Your task to perform on an android device: open chrome privacy settings Image 0: 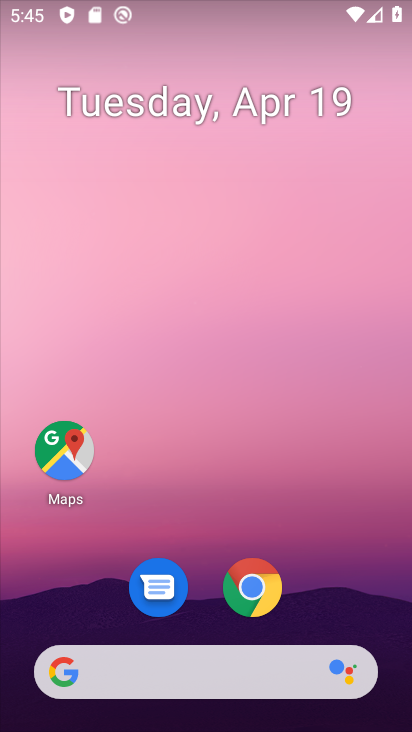
Step 0: click (258, 572)
Your task to perform on an android device: open chrome privacy settings Image 1: 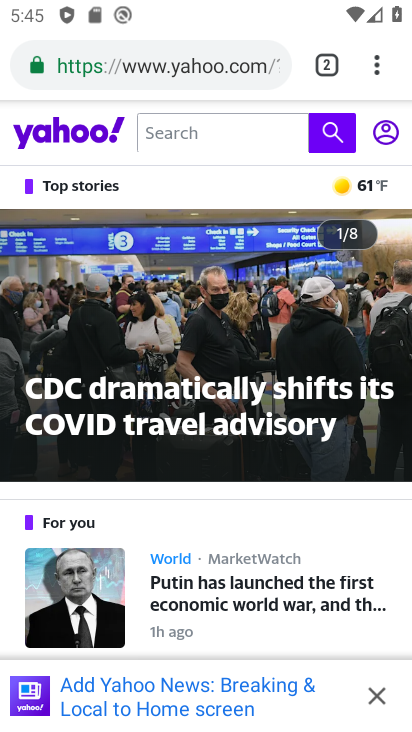
Step 1: click (395, 64)
Your task to perform on an android device: open chrome privacy settings Image 2: 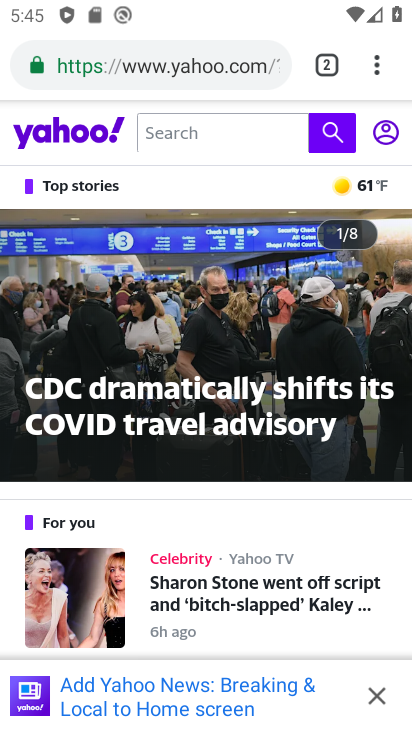
Step 2: click (373, 60)
Your task to perform on an android device: open chrome privacy settings Image 3: 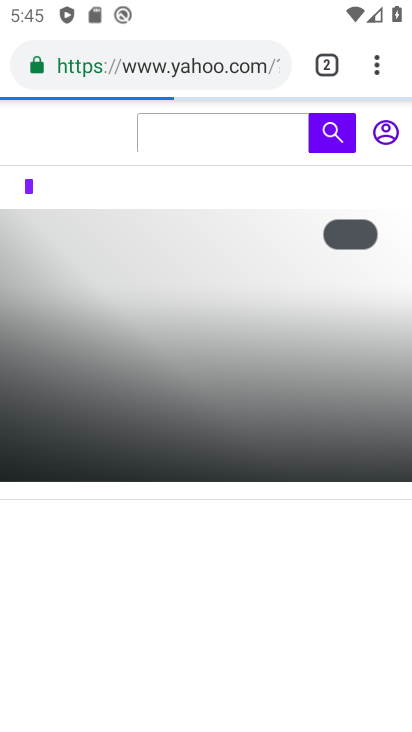
Step 3: click (373, 60)
Your task to perform on an android device: open chrome privacy settings Image 4: 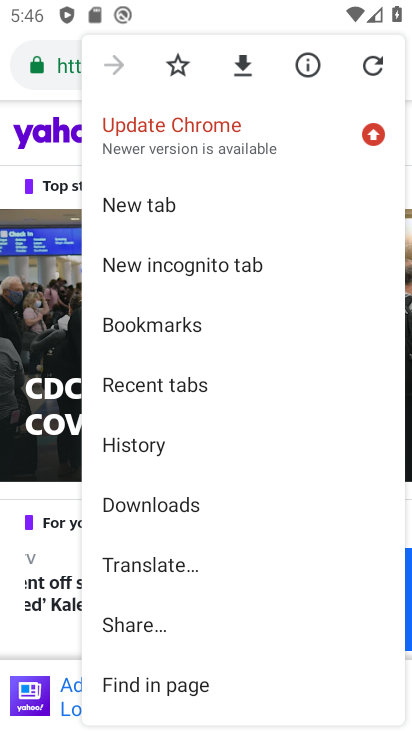
Step 4: drag from (203, 628) to (197, 206)
Your task to perform on an android device: open chrome privacy settings Image 5: 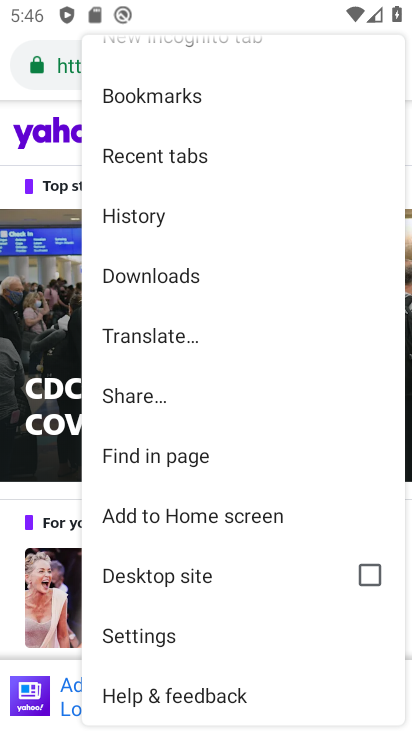
Step 5: drag from (199, 643) to (239, 169)
Your task to perform on an android device: open chrome privacy settings Image 6: 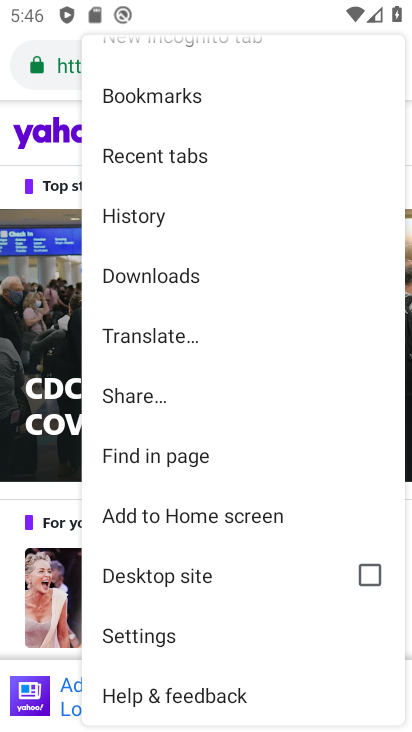
Step 6: click (176, 634)
Your task to perform on an android device: open chrome privacy settings Image 7: 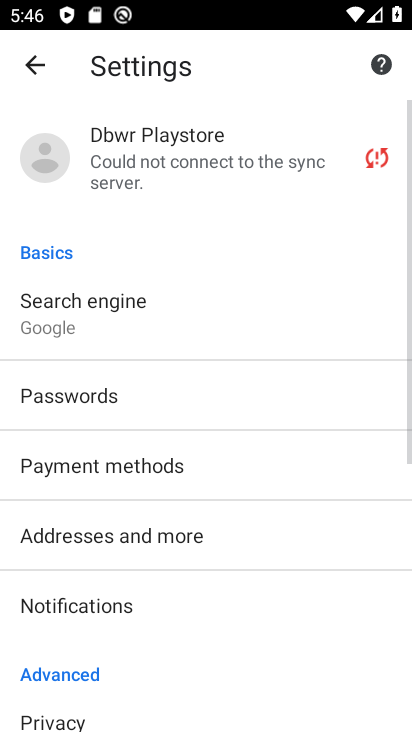
Step 7: drag from (176, 634) to (188, 131)
Your task to perform on an android device: open chrome privacy settings Image 8: 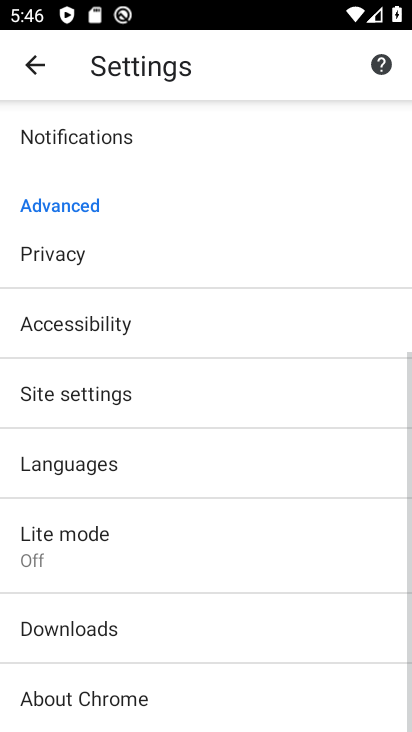
Step 8: click (100, 270)
Your task to perform on an android device: open chrome privacy settings Image 9: 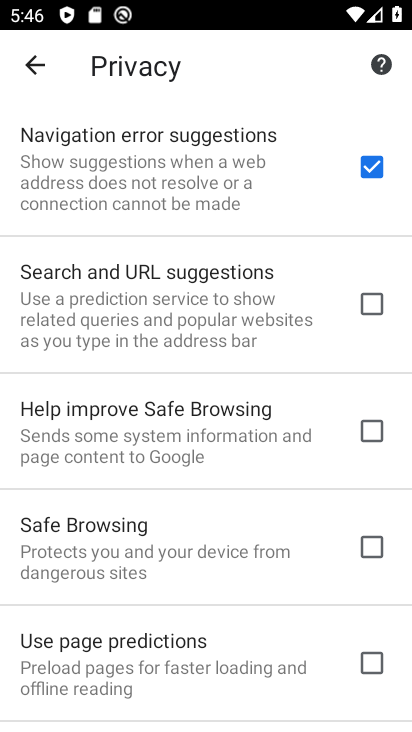
Step 9: task complete